Your task to perform on an android device: What's on my calendar today? Image 0: 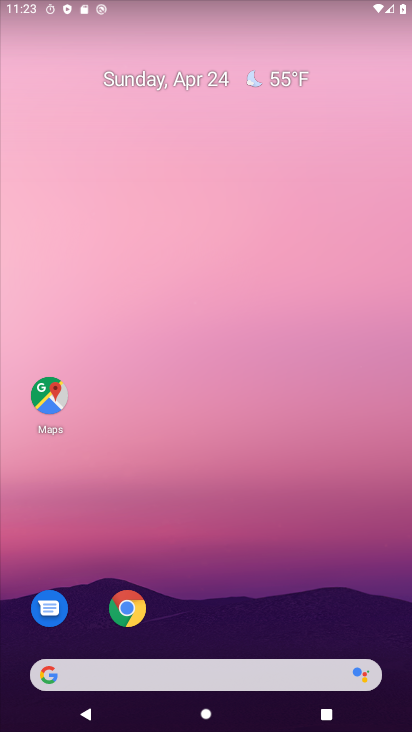
Step 0: click (315, 112)
Your task to perform on an android device: What's on my calendar today? Image 1: 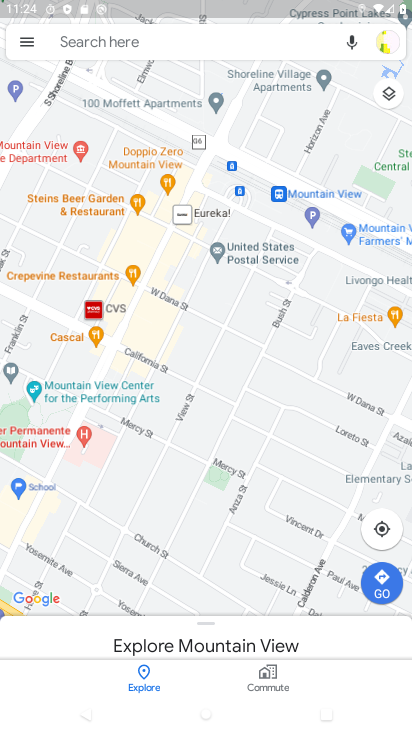
Step 1: press back button
Your task to perform on an android device: What's on my calendar today? Image 2: 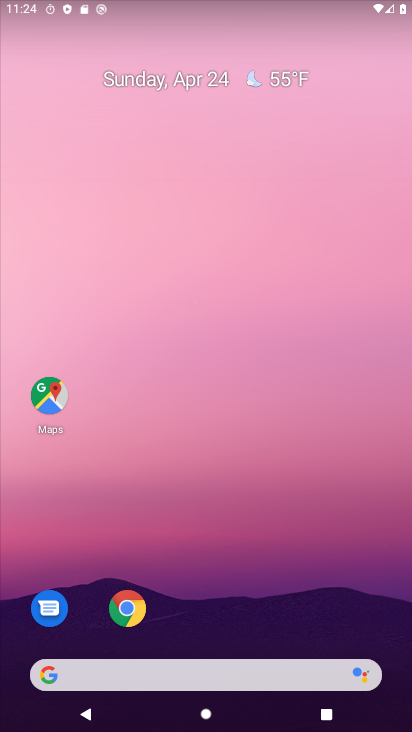
Step 2: drag from (188, 573) to (298, 79)
Your task to perform on an android device: What's on my calendar today? Image 3: 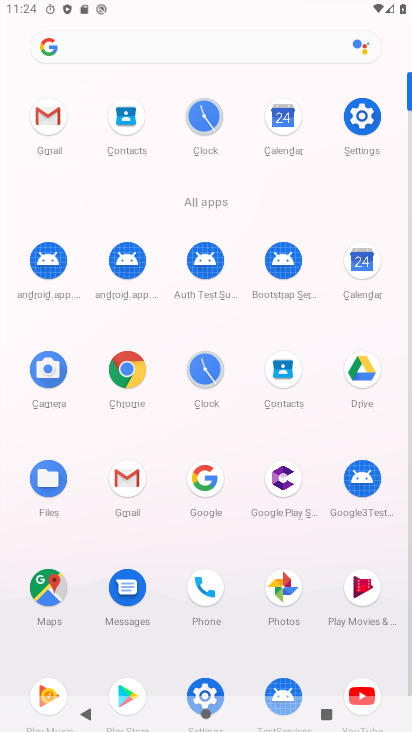
Step 3: click (370, 260)
Your task to perform on an android device: What's on my calendar today? Image 4: 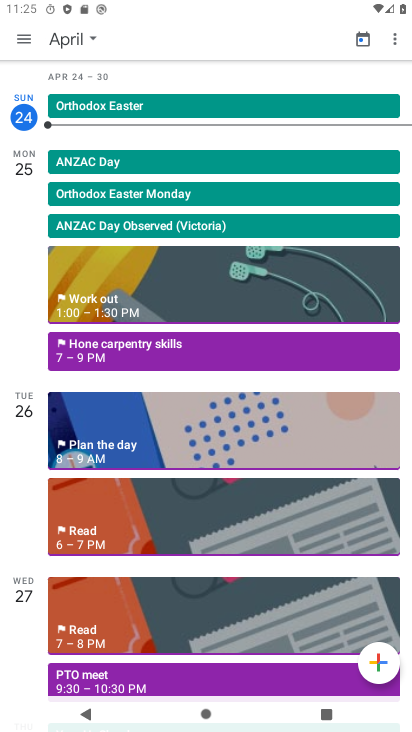
Step 4: click (118, 226)
Your task to perform on an android device: What's on my calendar today? Image 5: 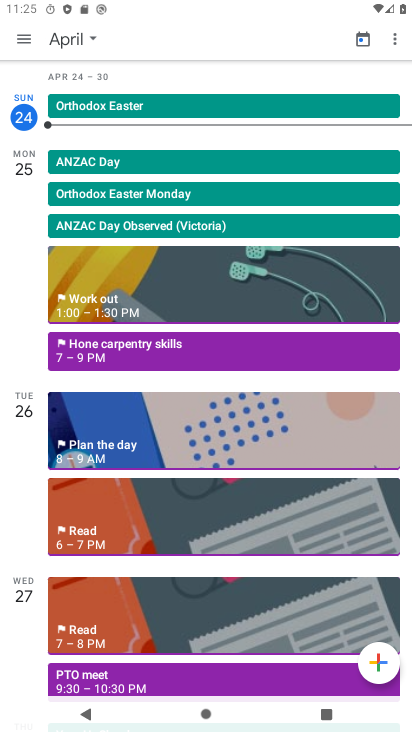
Step 5: click (116, 226)
Your task to perform on an android device: What's on my calendar today? Image 6: 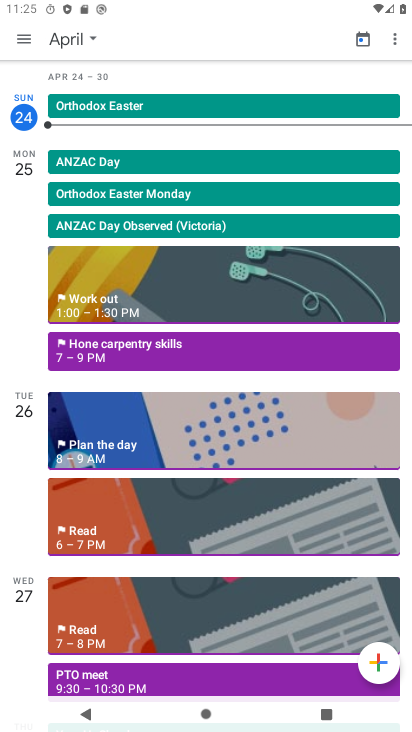
Step 6: click (102, 170)
Your task to perform on an android device: What's on my calendar today? Image 7: 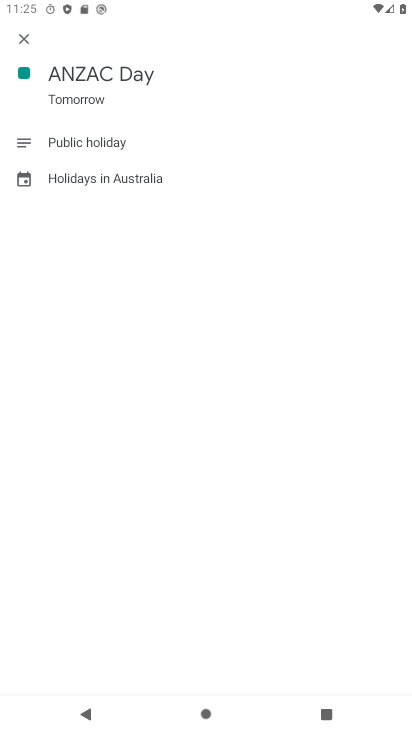
Step 7: task complete